Your task to perform on an android device: check google app version Image 0: 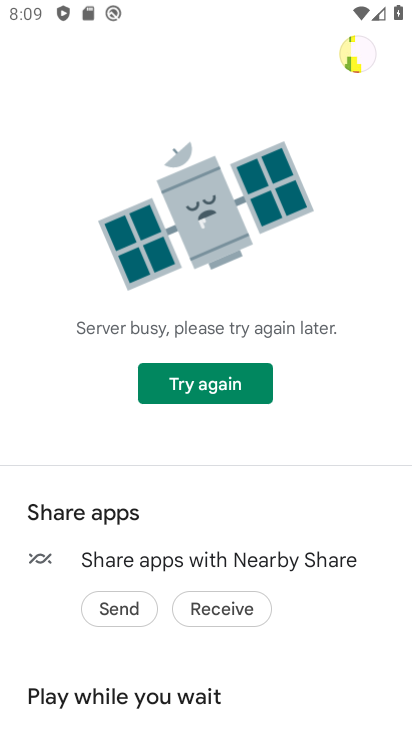
Step 0: press home button
Your task to perform on an android device: check google app version Image 1: 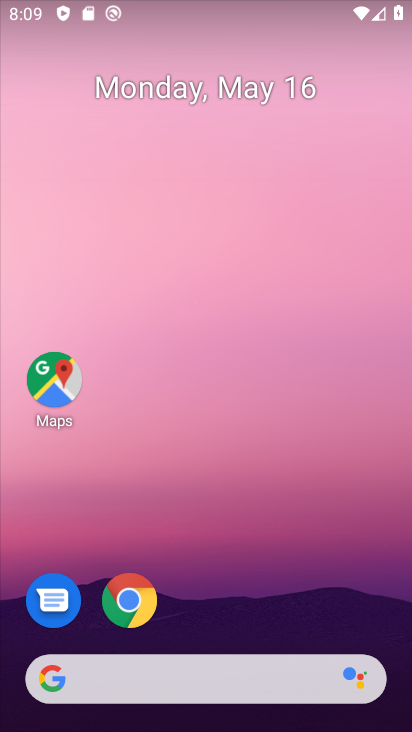
Step 1: drag from (238, 630) to (330, 75)
Your task to perform on an android device: check google app version Image 2: 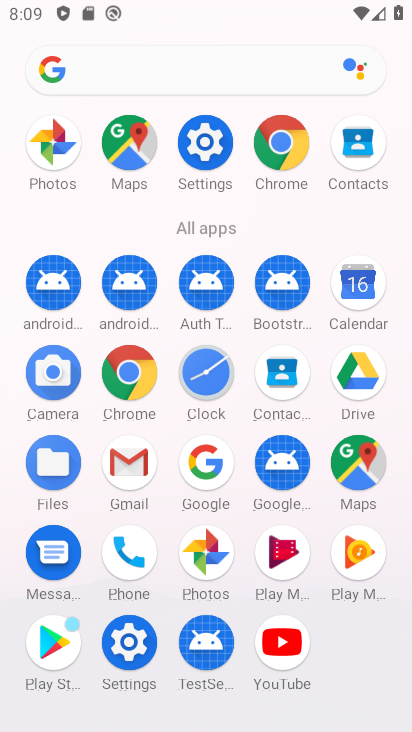
Step 2: drag from (195, 567) to (269, 329)
Your task to perform on an android device: check google app version Image 3: 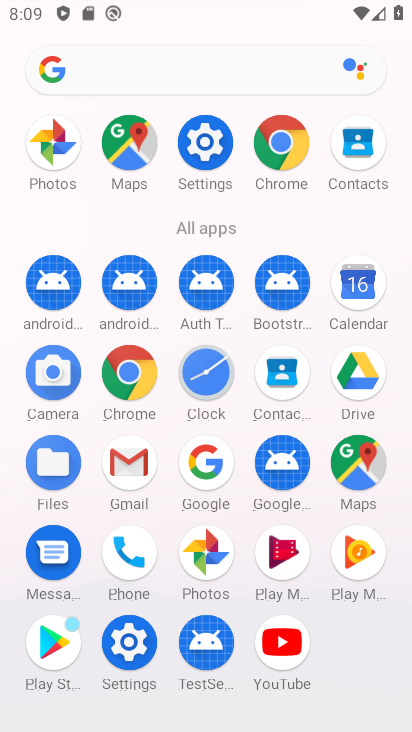
Step 3: click (114, 646)
Your task to perform on an android device: check google app version Image 4: 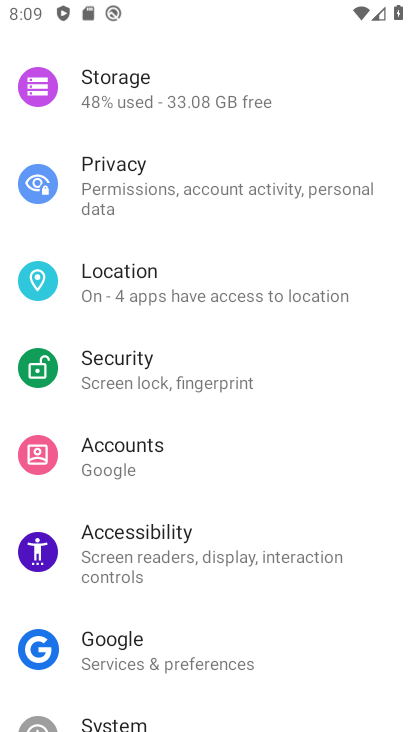
Step 4: drag from (271, 212) to (192, 682)
Your task to perform on an android device: check google app version Image 5: 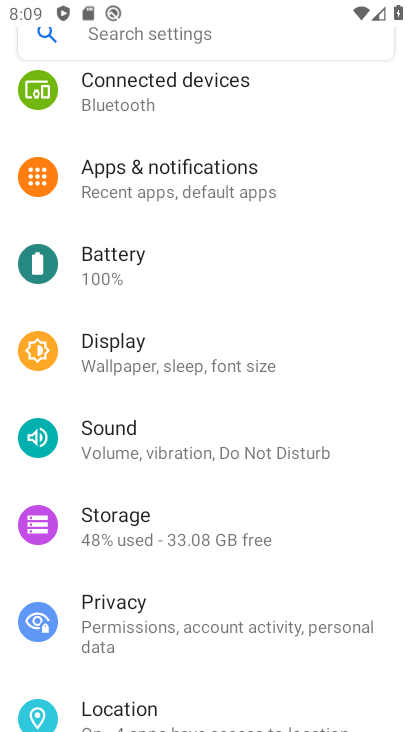
Step 5: click (222, 196)
Your task to perform on an android device: check google app version Image 6: 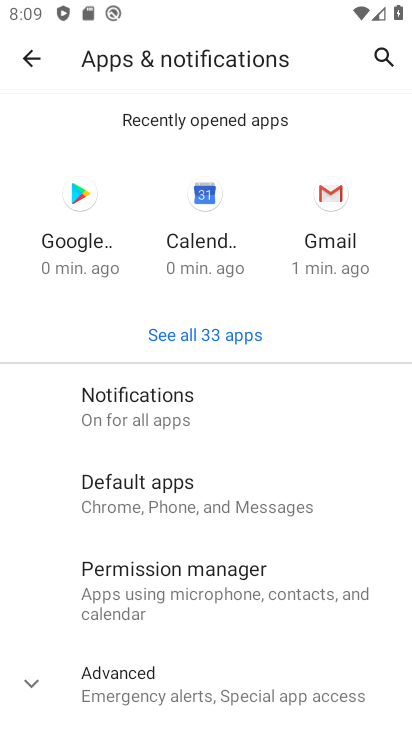
Step 6: click (246, 318)
Your task to perform on an android device: check google app version Image 7: 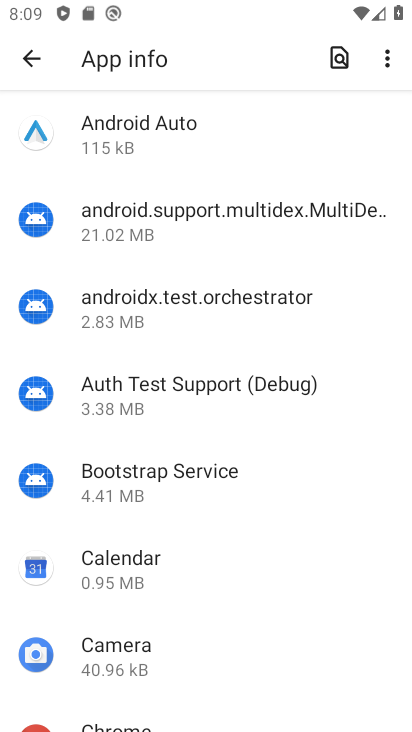
Step 7: drag from (195, 627) to (326, 75)
Your task to perform on an android device: check google app version Image 8: 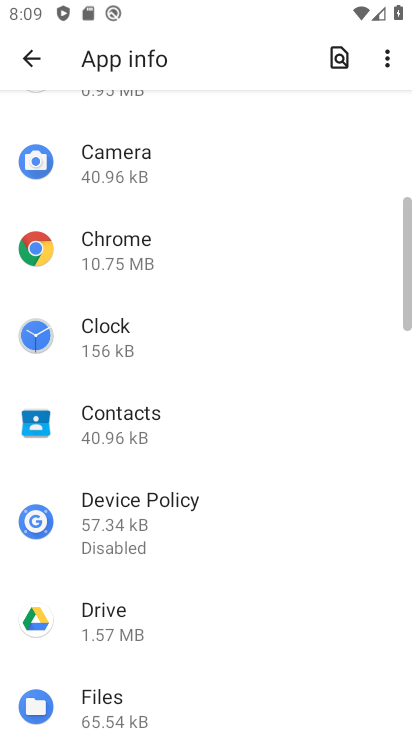
Step 8: drag from (222, 562) to (332, 142)
Your task to perform on an android device: check google app version Image 9: 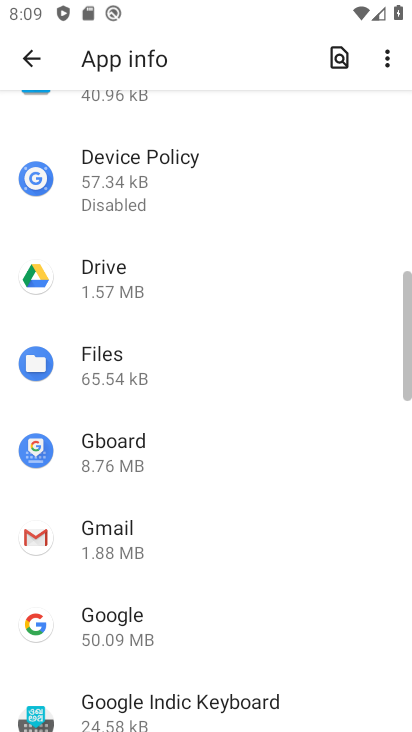
Step 9: click (194, 641)
Your task to perform on an android device: check google app version Image 10: 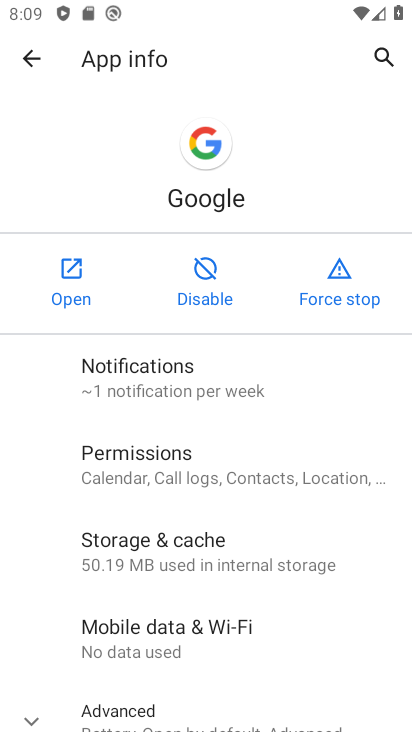
Step 10: drag from (266, 558) to (406, 357)
Your task to perform on an android device: check google app version Image 11: 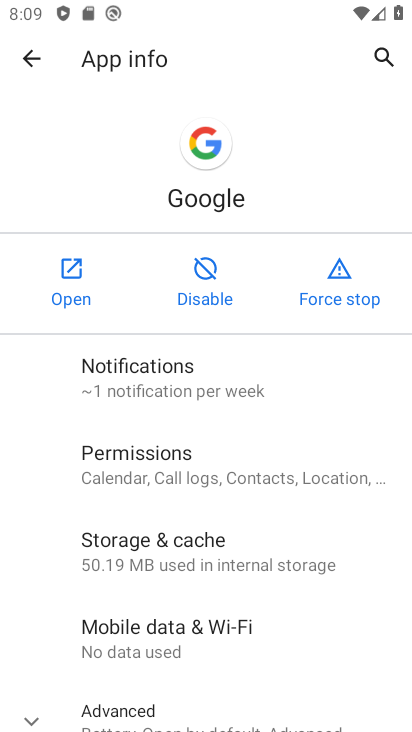
Step 11: drag from (225, 709) to (336, 240)
Your task to perform on an android device: check google app version Image 12: 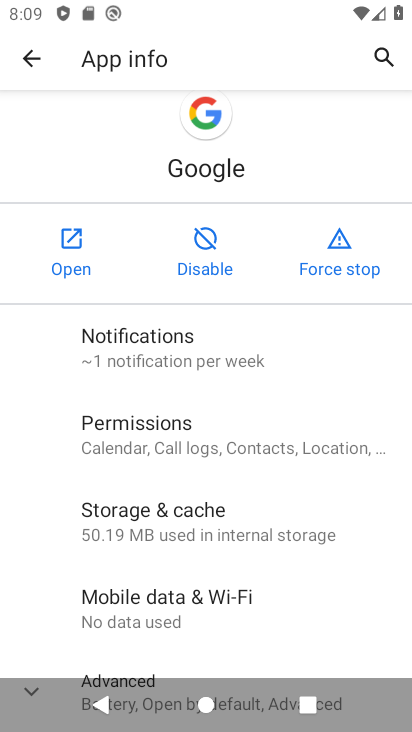
Step 12: click (150, 672)
Your task to perform on an android device: check google app version Image 13: 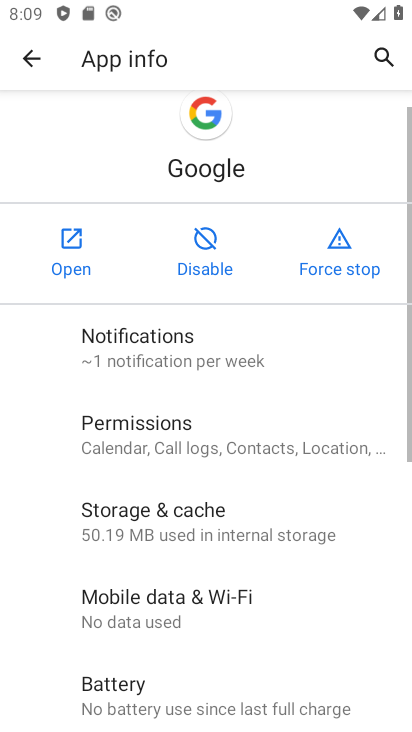
Step 13: task complete